Your task to perform on an android device: open wifi settings Image 0: 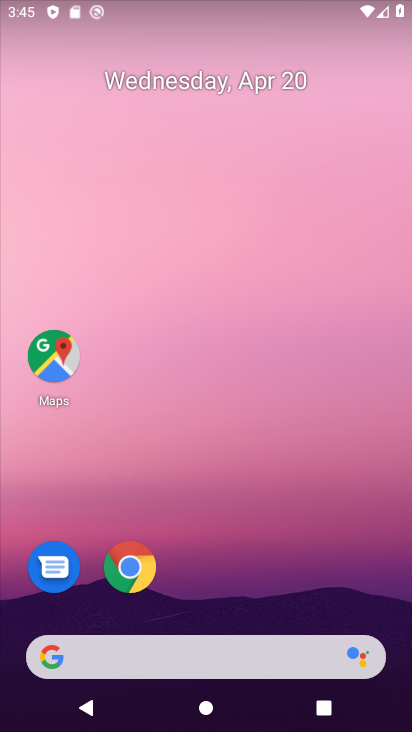
Step 0: drag from (382, 541) to (325, 138)
Your task to perform on an android device: open wifi settings Image 1: 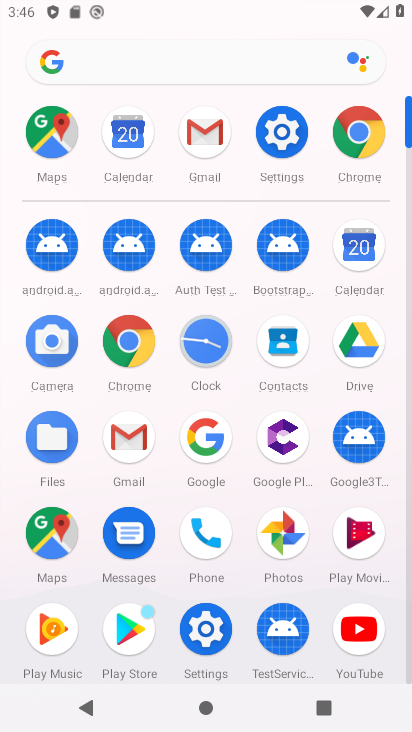
Step 1: click (266, 142)
Your task to perform on an android device: open wifi settings Image 2: 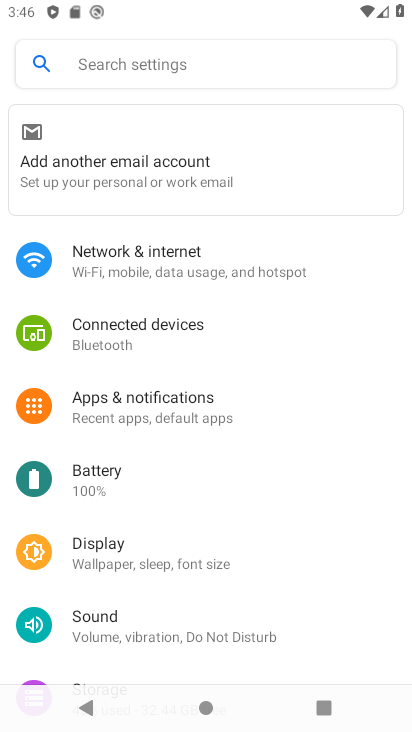
Step 2: click (279, 277)
Your task to perform on an android device: open wifi settings Image 3: 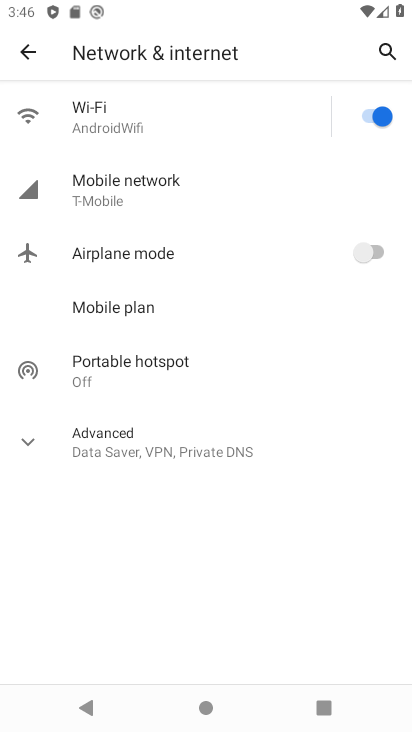
Step 3: click (76, 109)
Your task to perform on an android device: open wifi settings Image 4: 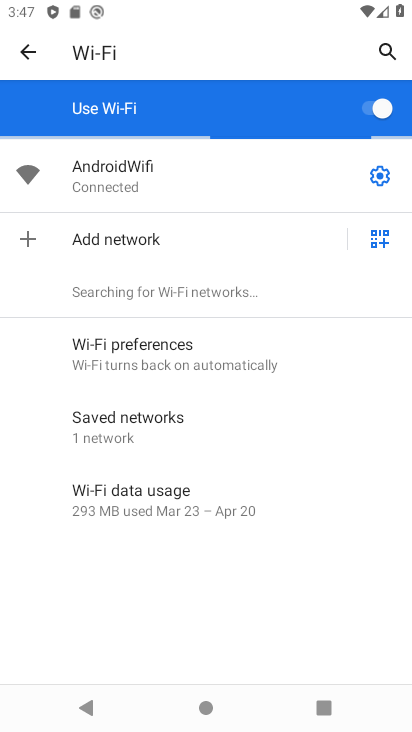
Step 4: task complete